Your task to perform on an android device: open chrome privacy settings Image 0: 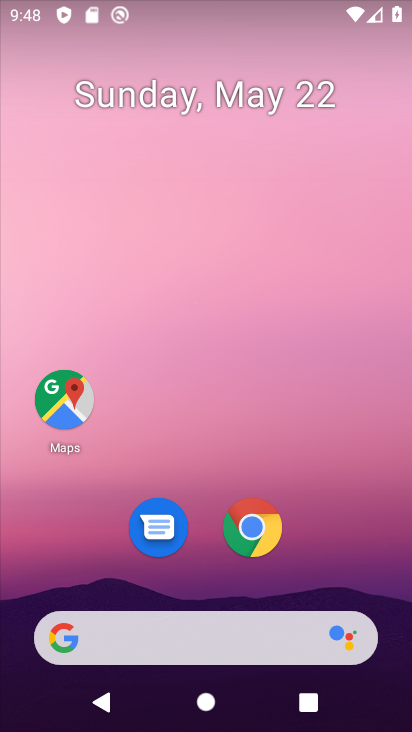
Step 0: click (326, 579)
Your task to perform on an android device: open chrome privacy settings Image 1: 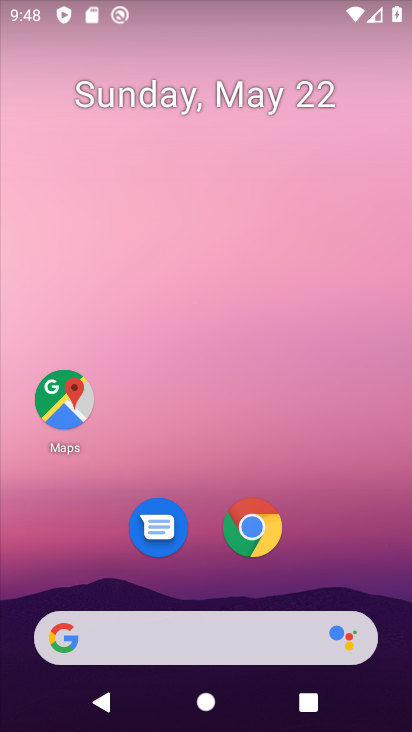
Step 1: click (259, 529)
Your task to perform on an android device: open chrome privacy settings Image 2: 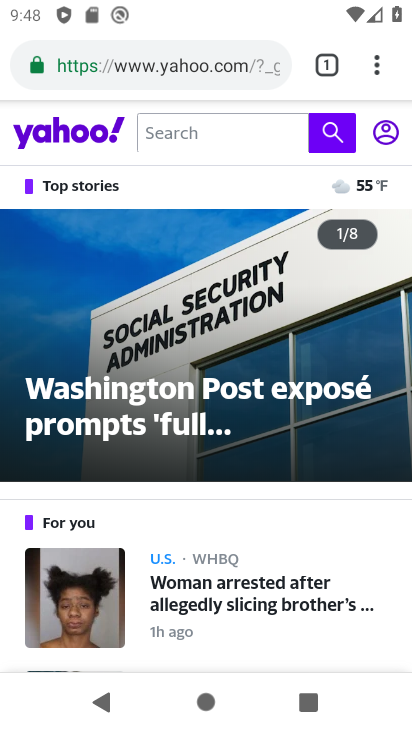
Step 2: click (379, 66)
Your task to perform on an android device: open chrome privacy settings Image 3: 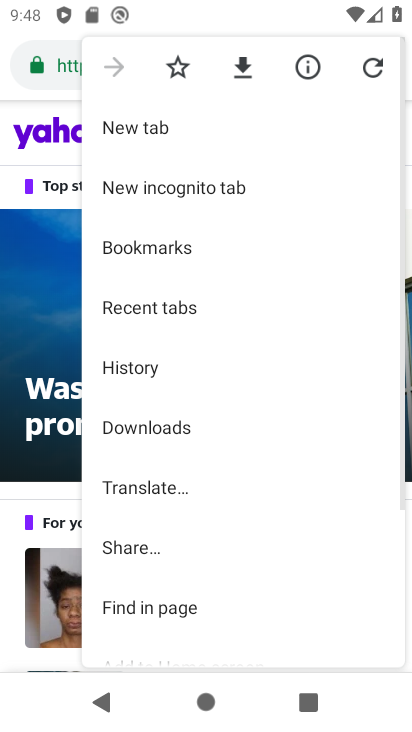
Step 3: drag from (167, 605) to (258, 239)
Your task to perform on an android device: open chrome privacy settings Image 4: 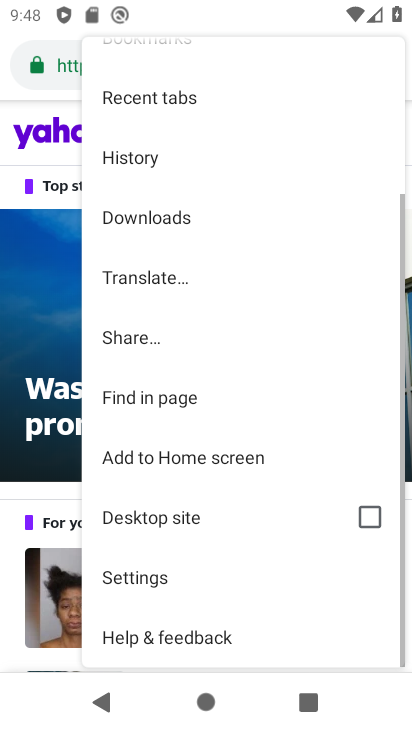
Step 4: click (180, 576)
Your task to perform on an android device: open chrome privacy settings Image 5: 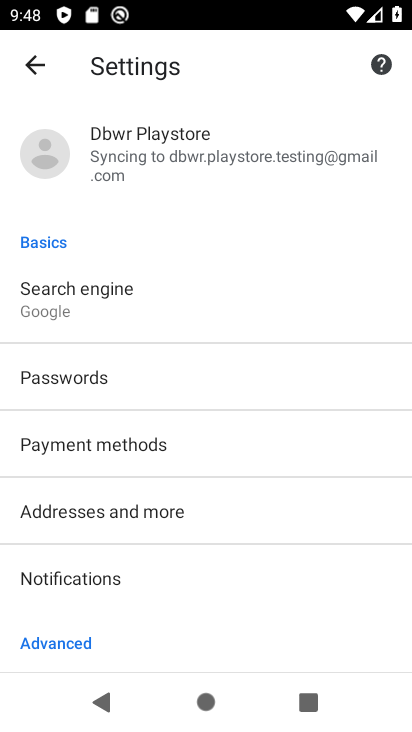
Step 5: drag from (151, 618) to (134, 508)
Your task to perform on an android device: open chrome privacy settings Image 6: 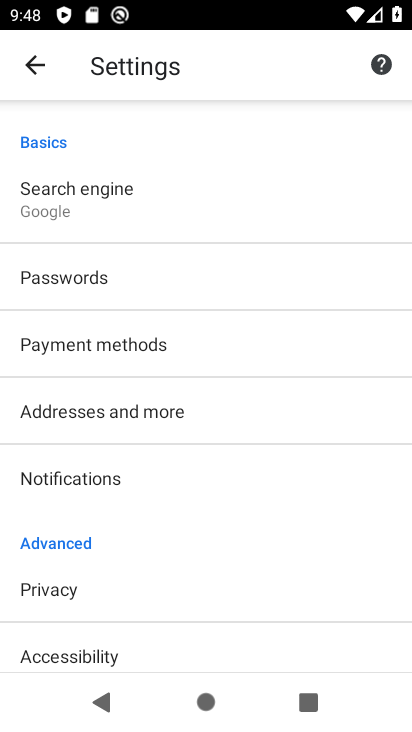
Step 6: click (134, 585)
Your task to perform on an android device: open chrome privacy settings Image 7: 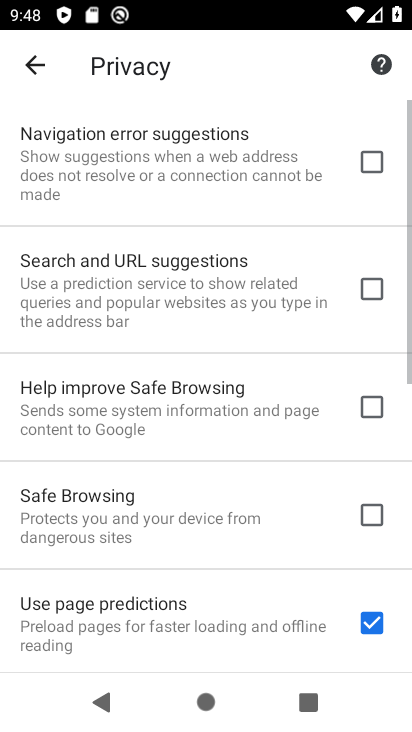
Step 7: task complete